Your task to perform on an android device: turn on javascript in the chrome app Image 0: 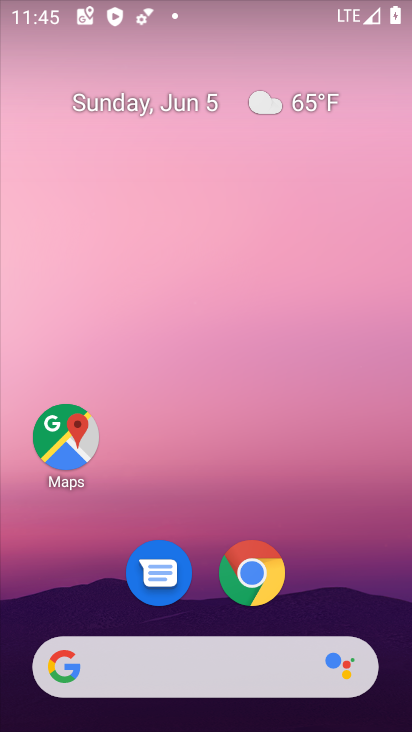
Step 0: drag from (208, 430) to (240, 29)
Your task to perform on an android device: turn on javascript in the chrome app Image 1: 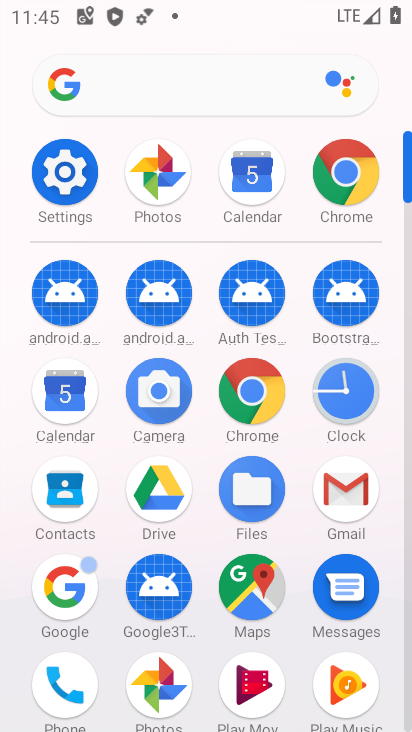
Step 1: click (272, 401)
Your task to perform on an android device: turn on javascript in the chrome app Image 2: 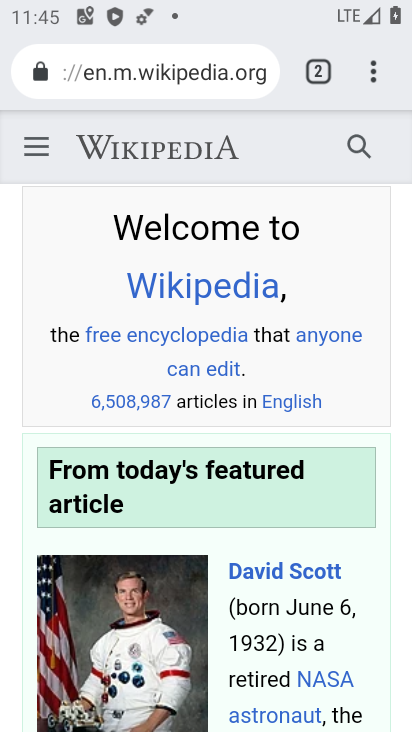
Step 2: click (373, 74)
Your task to perform on an android device: turn on javascript in the chrome app Image 3: 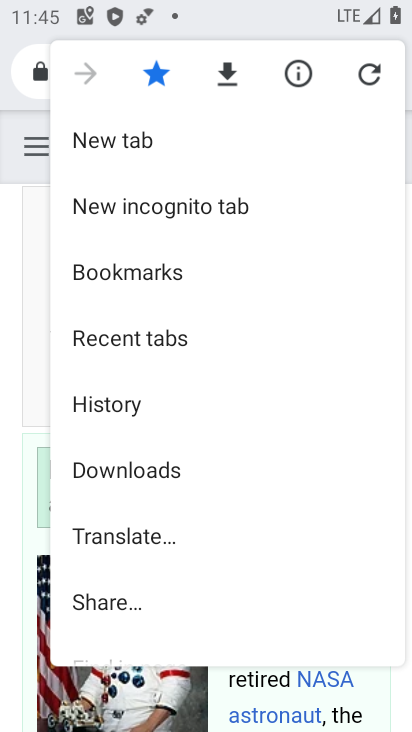
Step 3: drag from (150, 469) to (179, 143)
Your task to perform on an android device: turn on javascript in the chrome app Image 4: 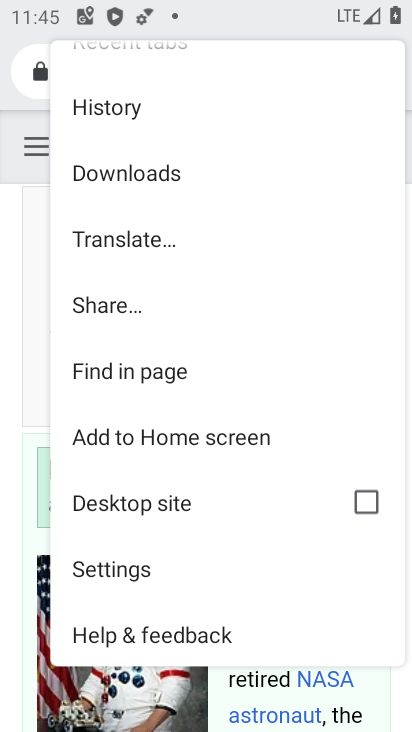
Step 4: click (132, 580)
Your task to perform on an android device: turn on javascript in the chrome app Image 5: 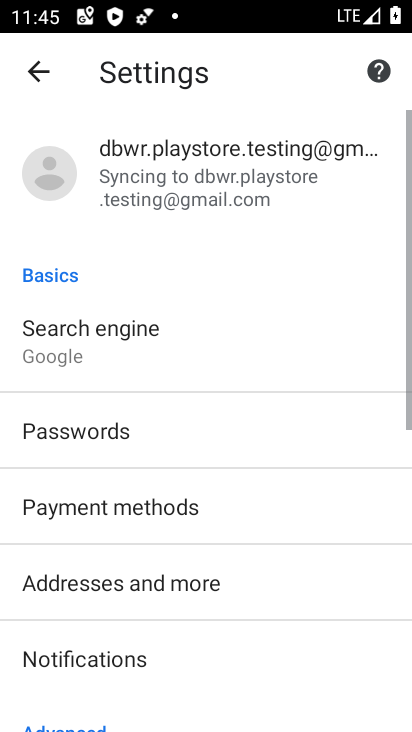
Step 5: drag from (187, 589) to (220, 162)
Your task to perform on an android device: turn on javascript in the chrome app Image 6: 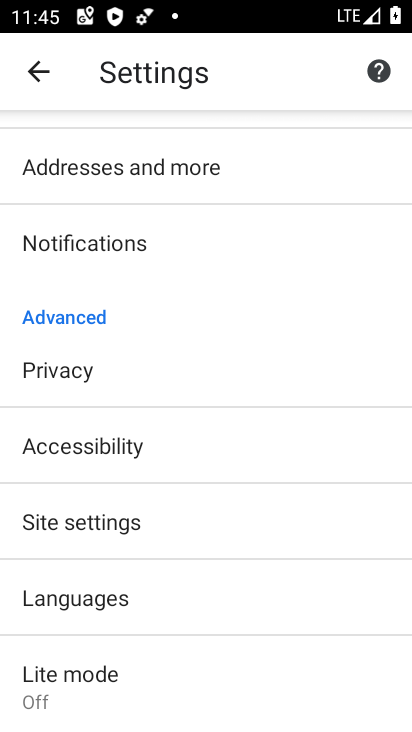
Step 6: click (141, 531)
Your task to perform on an android device: turn on javascript in the chrome app Image 7: 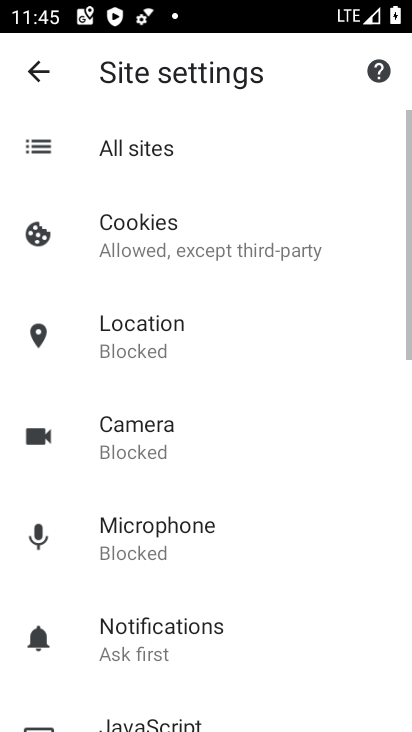
Step 7: drag from (171, 601) to (215, 284)
Your task to perform on an android device: turn on javascript in the chrome app Image 8: 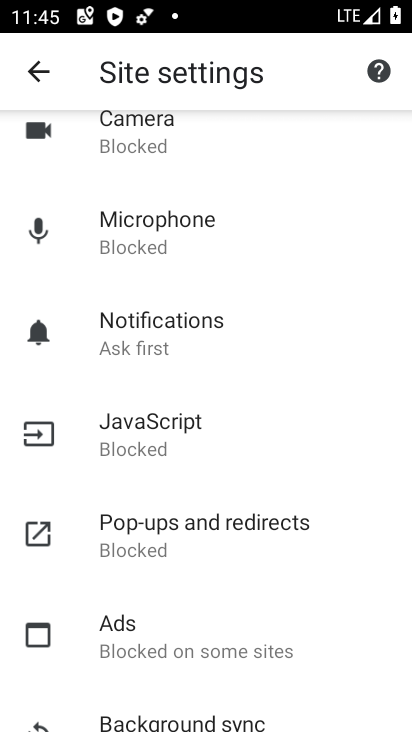
Step 8: click (161, 446)
Your task to perform on an android device: turn on javascript in the chrome app Image 9: 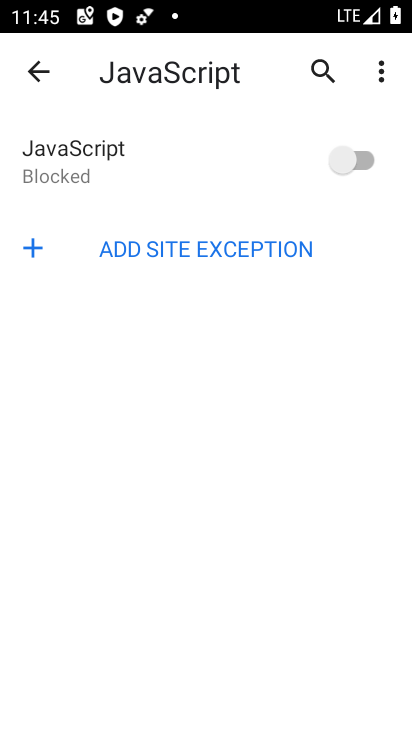
Step 9: click (339, 164)
Your task to perform on an android device: turn on javascript in the chrome app Image 10: 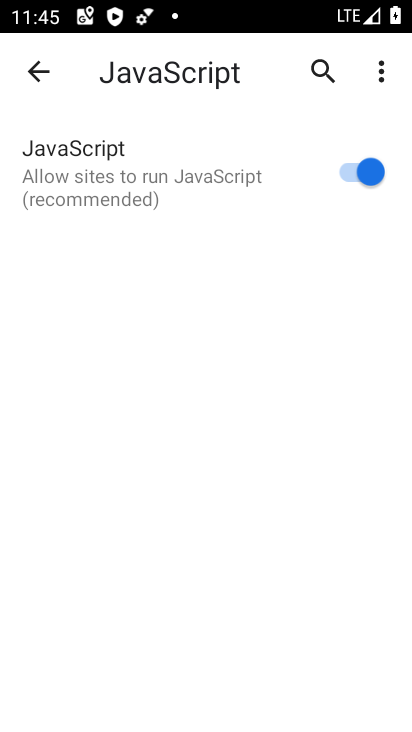
Step 10: task complete